Your task to perform on an android device: turn on the 12-hour format for clock Image 0: 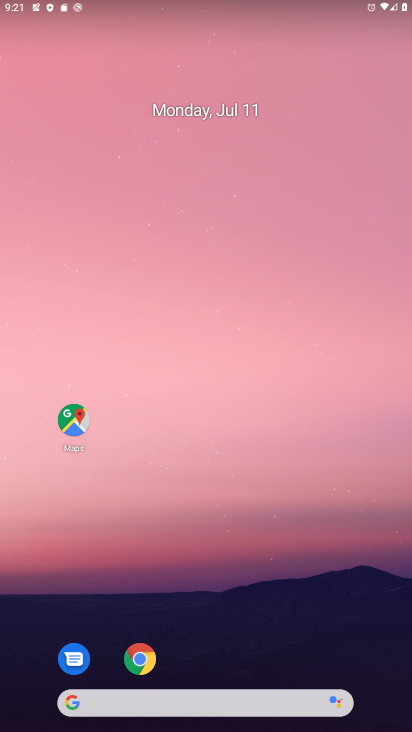
Step 0: drag from (257, 578) to (254, 57)
Your task to perform on an android device: turn on the 12-hour format for clock Image 1: 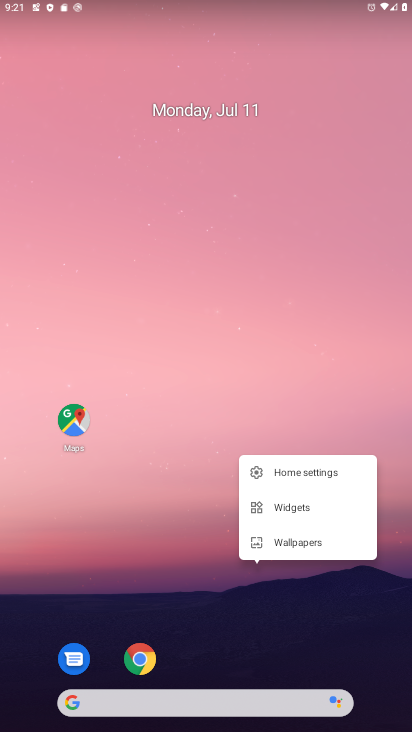
Step 1: click (156, 482)
Your task to perform on an android device: turn on the 12-hour format for clock Image 2: 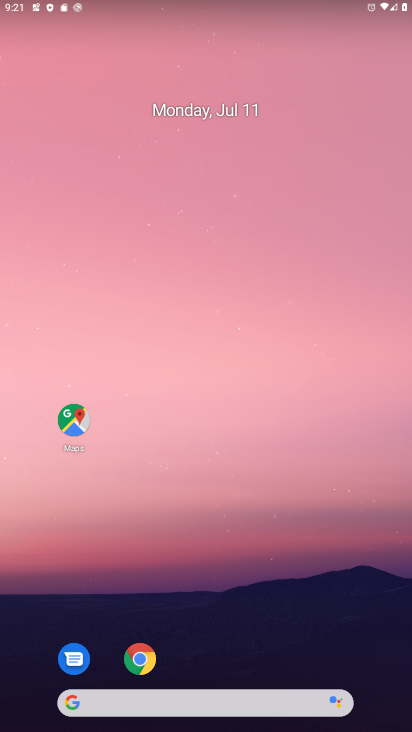
Step 2: drag from (243, 553) to (211, 93)
Your task to perform on an android device: turn on the 12-hour format for clock Image 3: 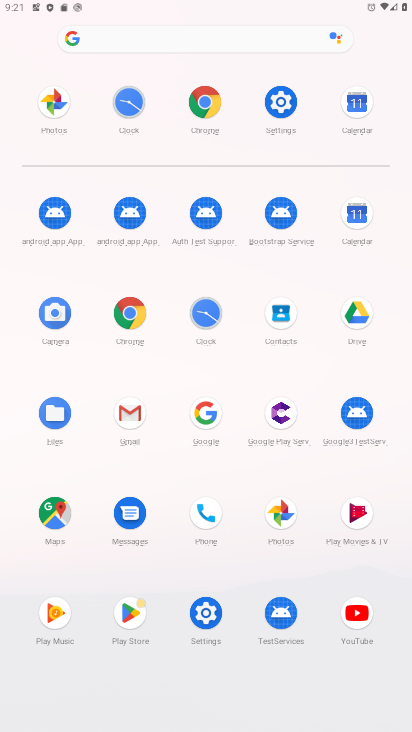
Step 3: click (204, 313)
Your task to perform on an android device: turn on the 12-hour format for clock Image 4: 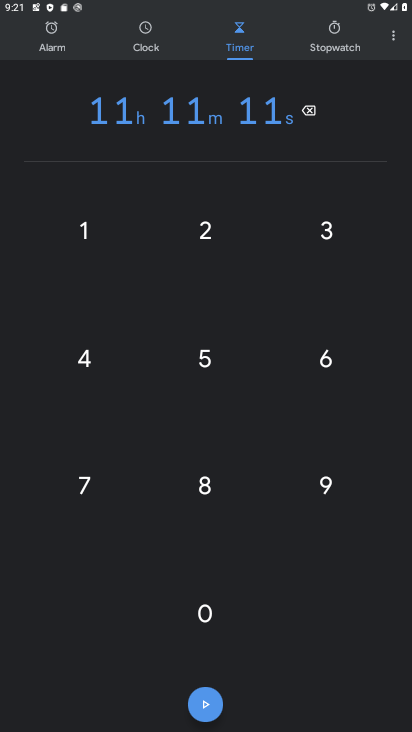
Step 4: click (398, 32)
Your task to perform on an android device: turn on the 12-hour format for clock Image 5: 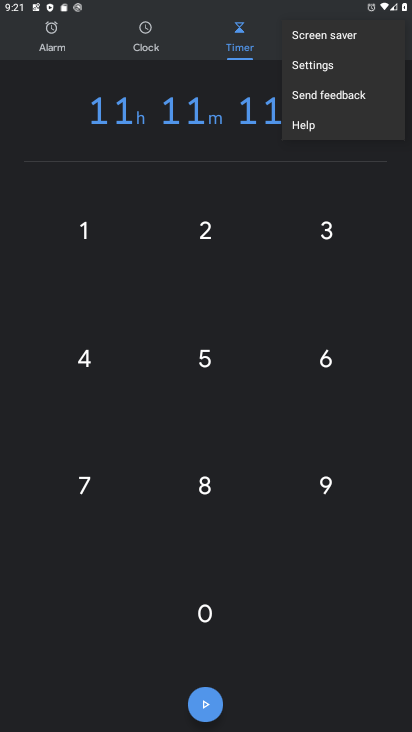
Step 5: click (316, 67)
Your task to perform on an android device: turn on the 12-hour format for clock Image 6: 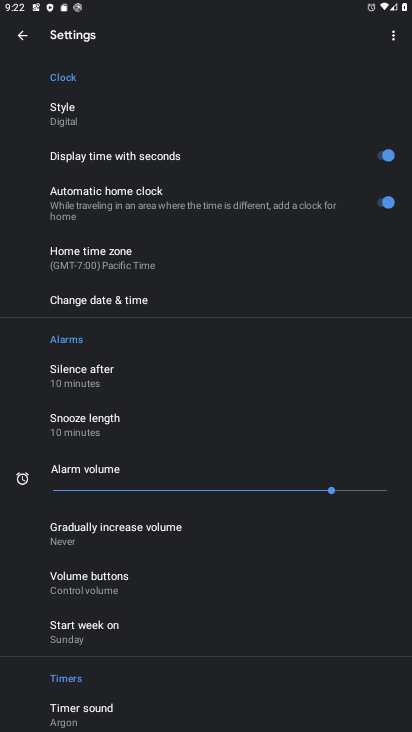
Step 6: click (82, 307)
Your task to perform on an android device: turn on the 12-hour format for clock Image 7: 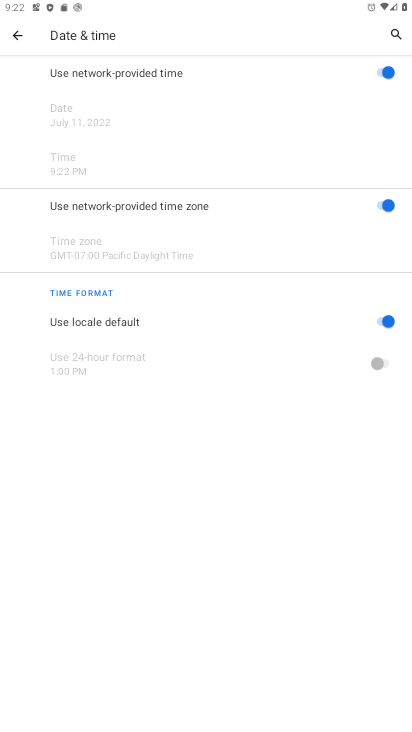
Step 7: task complete